Your task to perform on an android device: Show me popular games on the Play Store Image 0: 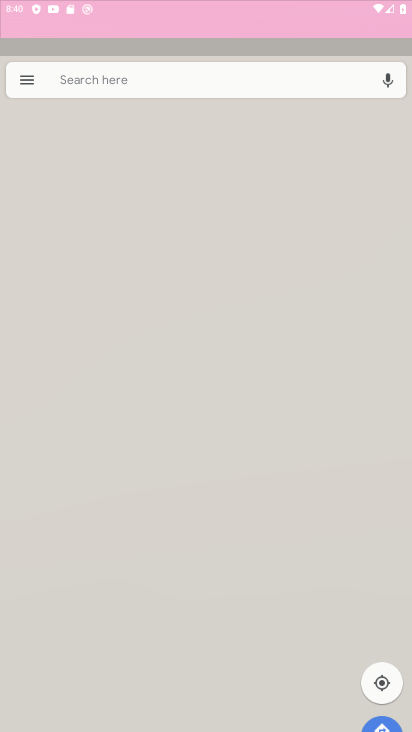
Step 0: drag from (233, 550) to (168, 22)
Your task to perform on an android device: Show me popular games on the Play Store Image 1: 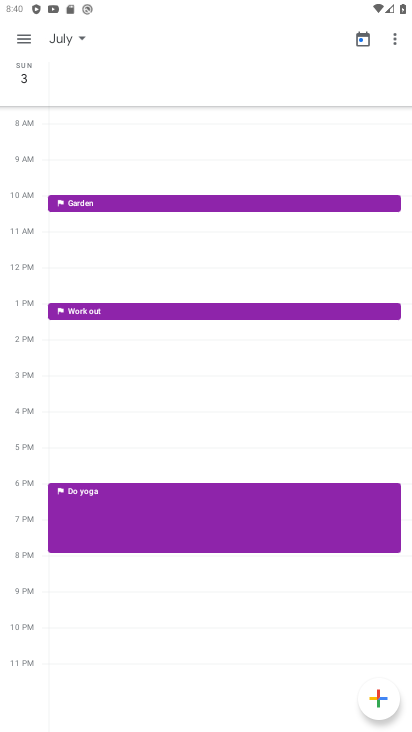
Step 1: press back button
Your task to perform on an android device: Show me popular games on the Play Store Image 2: 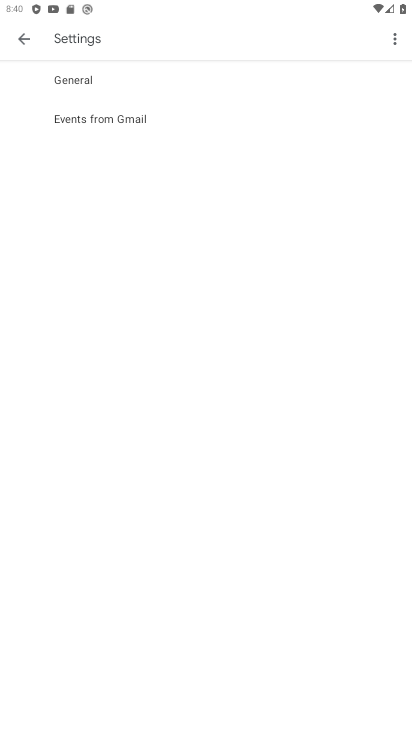
Step 2: press home button
Your task to perform on an android device: Show me popular games on the Play Store Image 3: 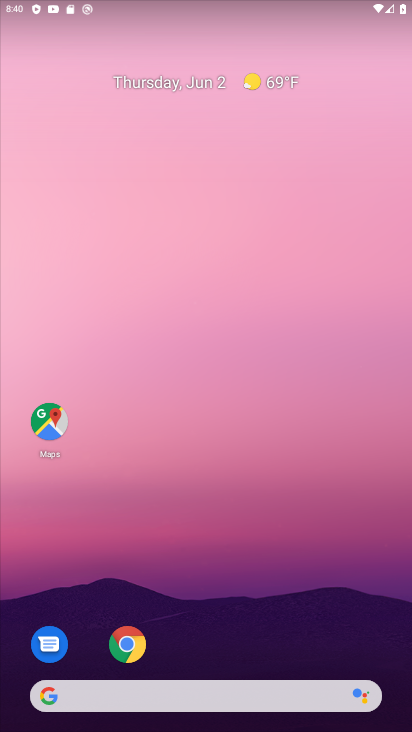
Step 3: drag from (248, 619) to (199, 11)
Your task to perform on an android device: Show me popular games on the Play Store Image 4: 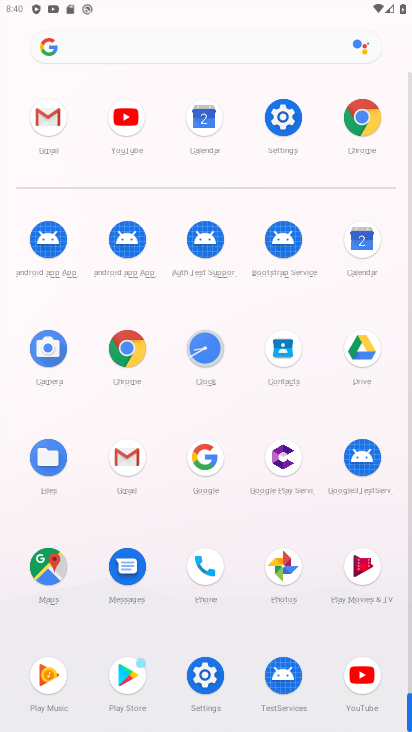
Step 4: drag from (0, 614) to (6, 227)
Your task to perform on an android device: Show me popular games on the Play Store Image 5: 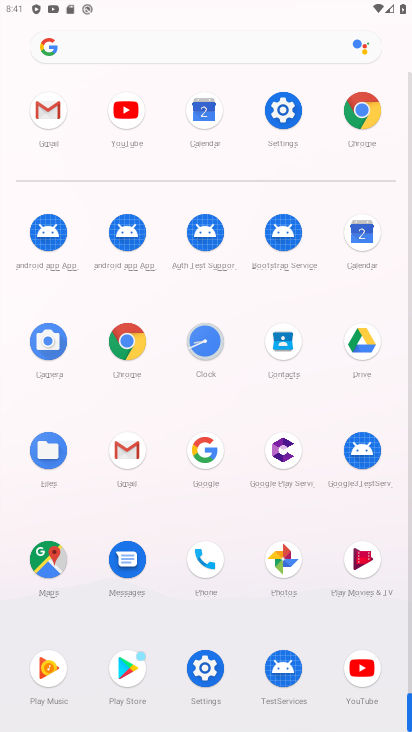
Step 5: click (129, 670)
Your task to perform on an android device: Show me popular games on the Play Store Image 6: 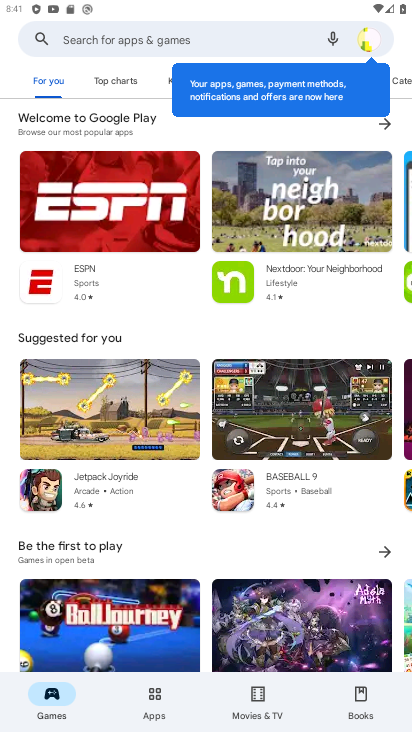
Step 6: task complete